Your task to perform on an android device: check storage Image 0: 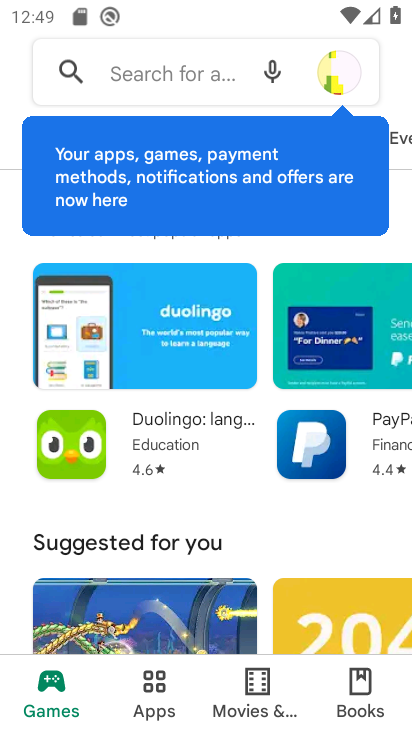
Step 0: press home button
Your task to perform on an android device: check storage Image 1: 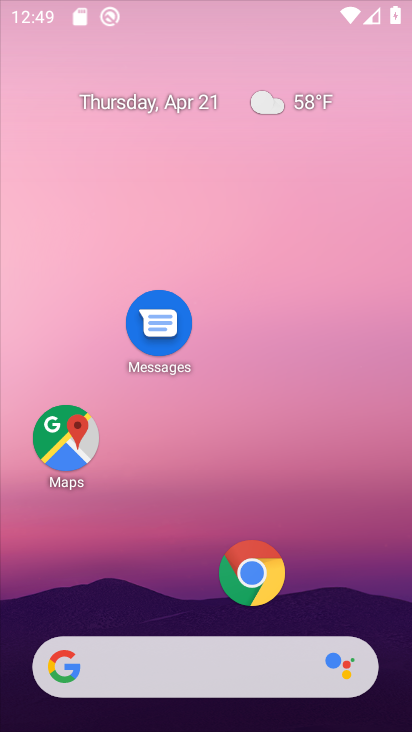
Step 1: drag from (189, 556) to (194, 137)
Your task to perform on an android device: check storage Image 2: 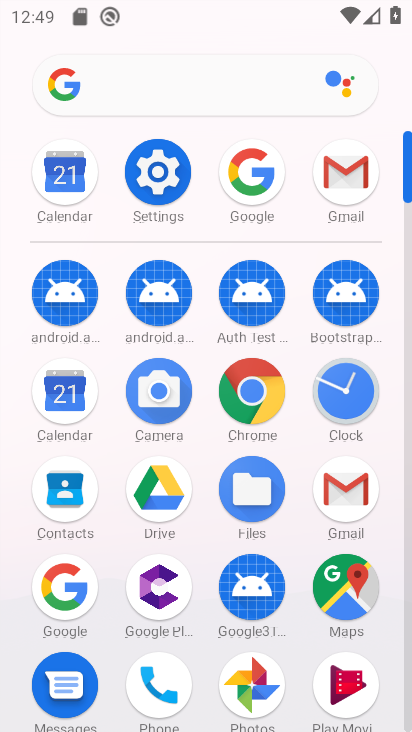
Step 2: click (158, 171)
Your task to perform on an android device: check storage Image 3: 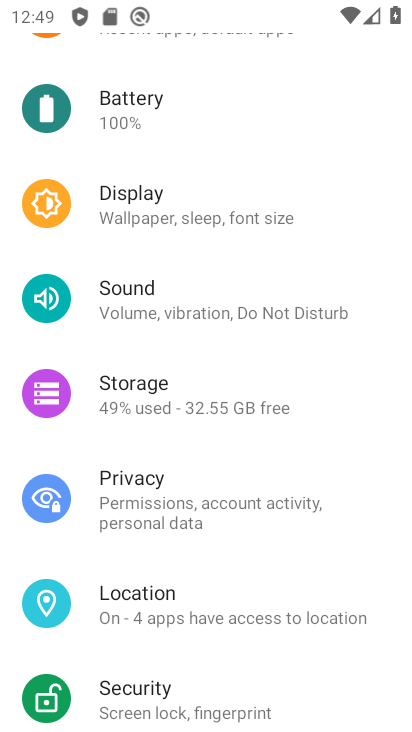
Step 3: click (170, 395)
Your task to perform on an android device: check storage Image 4: 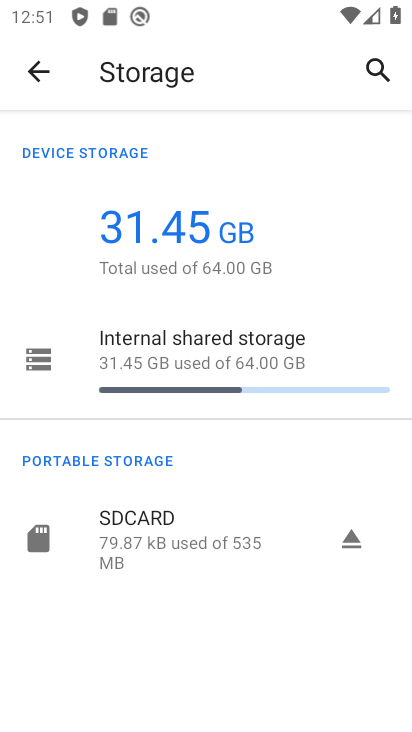
Step 4: task complete